Your task to perform on an android device: Open notification settings Image 0: 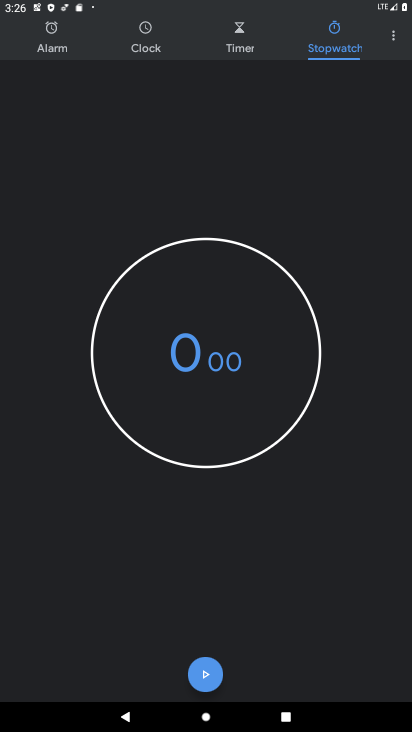
Step 0: press home button
Your task to perform on an android device: Open notification settings Image 1: 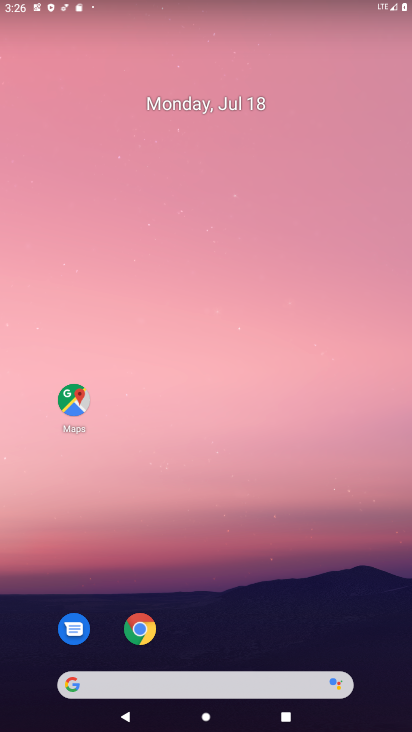
Step 1: drag from (254, 638) to (255, 200)
Your task to perform on an android device: Open notification settings Image 2: 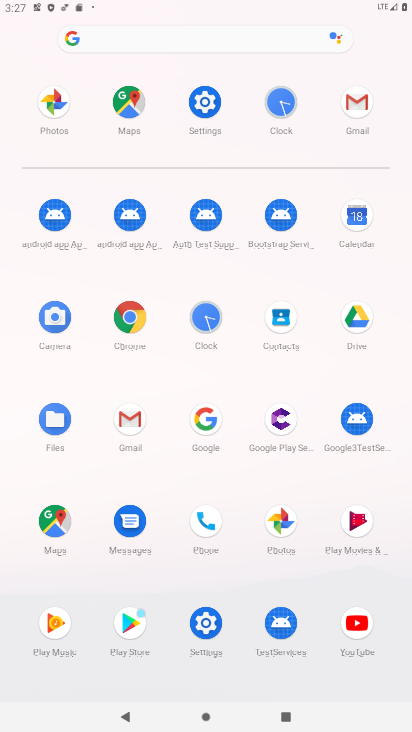
Step 2: click (196, 624)
Your task to perform on an android device: Open notification settings Image 3: 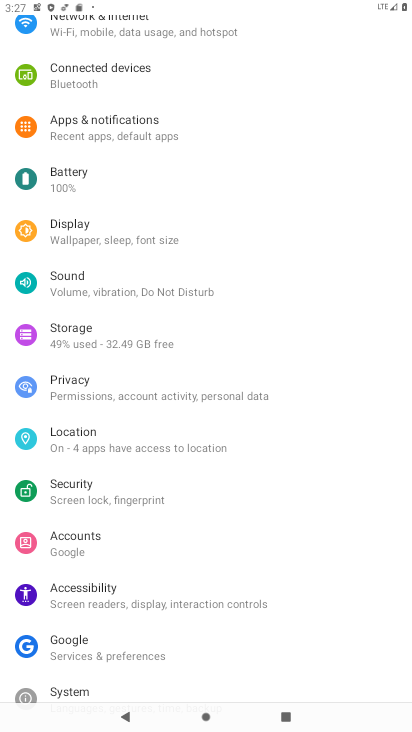
Step 3: click (137, 132)
Your task to perform on an android device: Open notification settings Image 4: 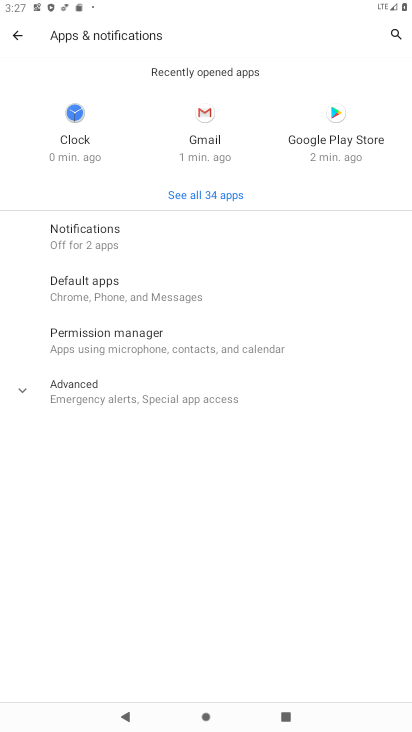
Step 4: click (126, 241)
Your task to perform on an android device: Open notification settings Image 5: 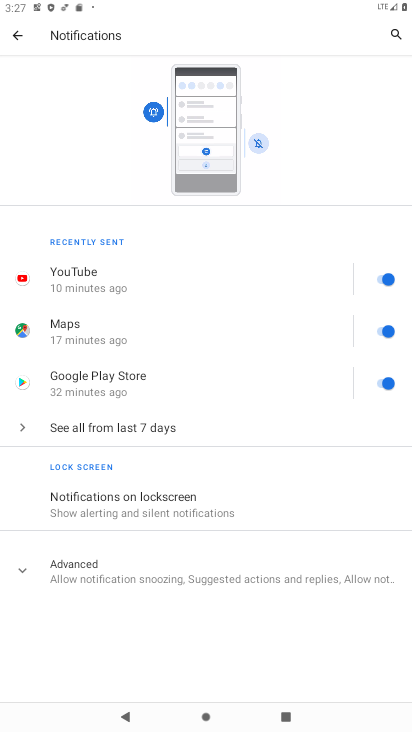
Step 5: task complete